Your task to perform on an android device: Open the calendar app, open the side menu, and click the "Day" option Image 0: 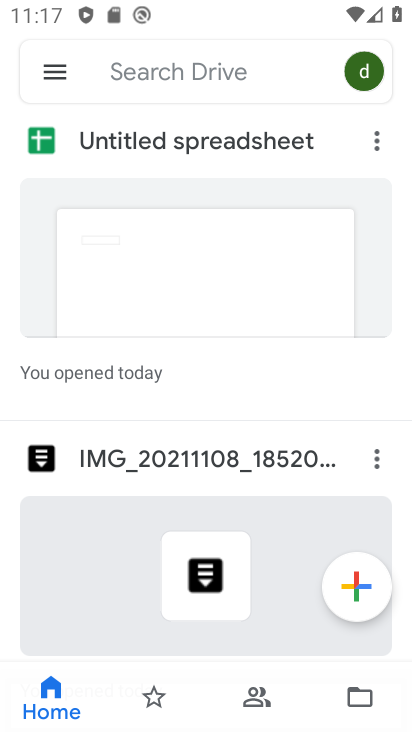
Step 0: press home button
Your task to perform on an android device: Open the calendar app, open the side menu, and click the "Day" option Image 1: 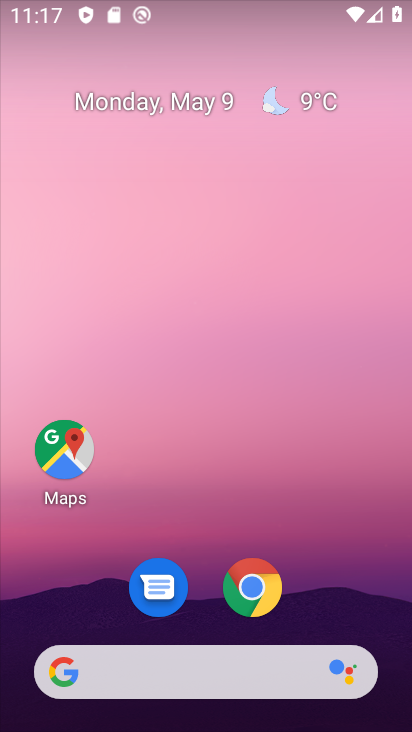
Step 1: drag from (192, 641) to (321, 247)
Your task to perform on an android device: Open the calendar app, open the side menu, and click the "Day" option Image 2: 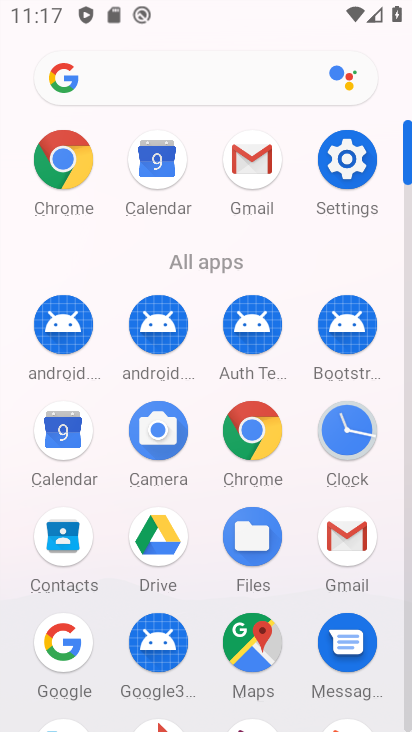
Step 2: click (62, 436)
Your task to perform on an android device: Open the calendar app, open the side menu, and click the "Day" option Image 3: 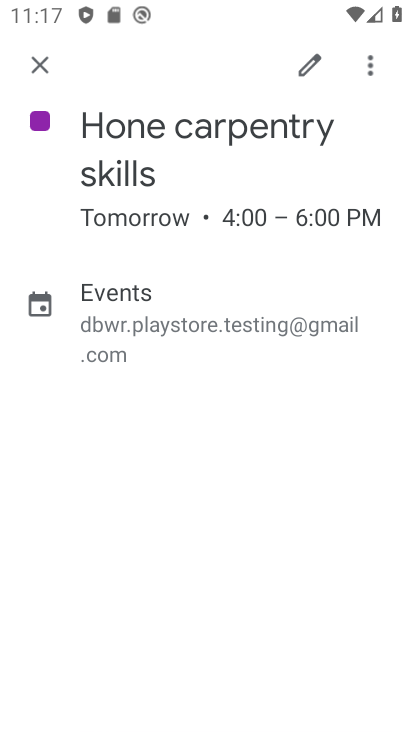
Step 3: click (40, 73)
Your task to perform on an android device: Open the calendar app, open the side menu, and click the "Day" option Image 4: 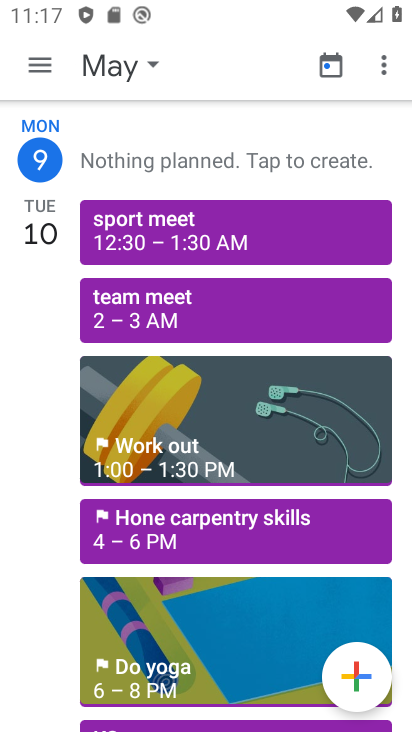
Step 4: click (52, 63)
Your task to perform on an android device: Open the calendar app, open the side menu, and click the "Day" option Image 5: 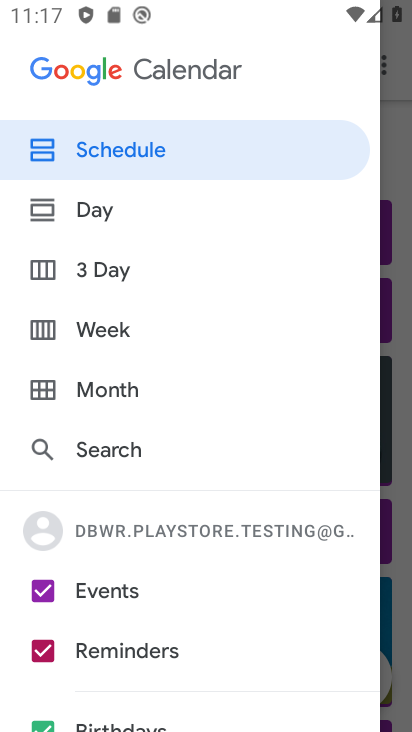
Step 5: click (147, 217)
Your task to perform on an android device: Open the calendar app, open the side menu, and click the "Day" option Image 6: 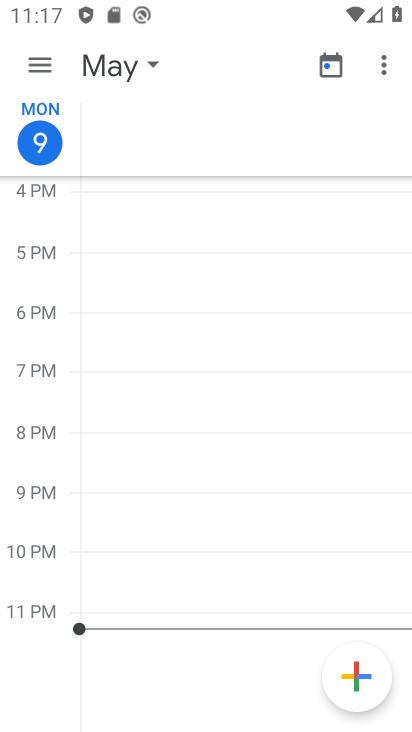
Step 6: task complete